Your task to perform on an android device: Play the last video I watched on Youtube Image 0: 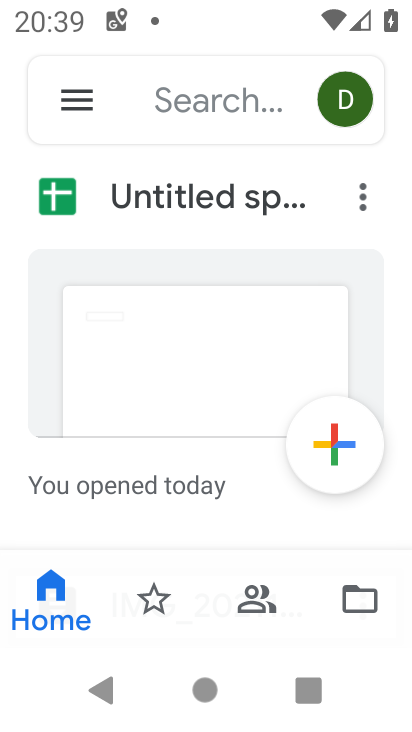
Step 0: press home button
Your task to perform on an android device: Play the last video I watched on Youtube Image 1: 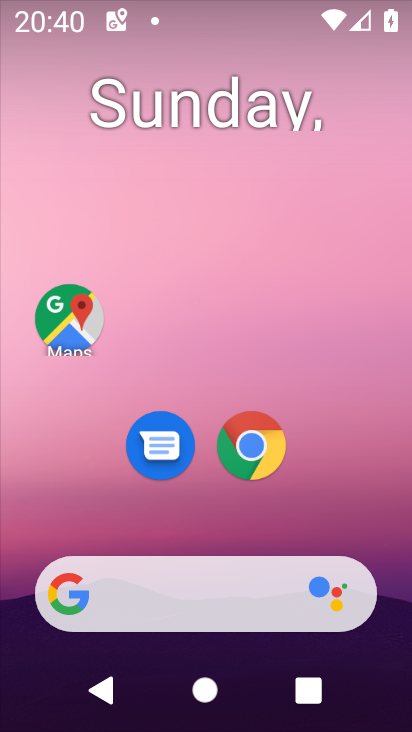
Step 1: drag from (126, 341) to (276, 94)
Your task to perform on an android device: Play the last video I watched on Youtube Image 2: 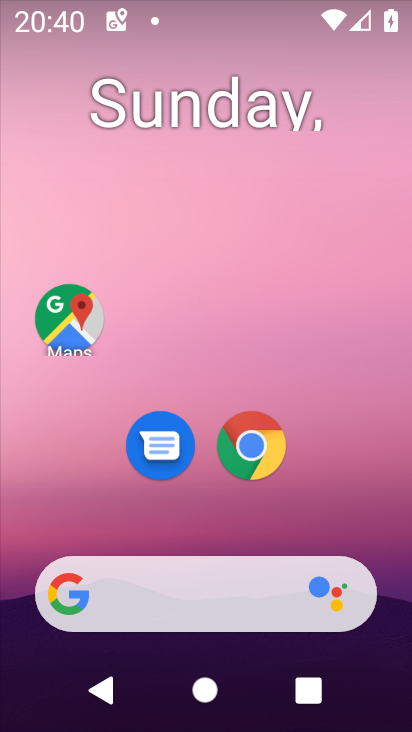
Step 2: drag from (6, 608) to (303, 95)
Your task to perform on an android device: Play the last video I watched on Youtube Image 3: 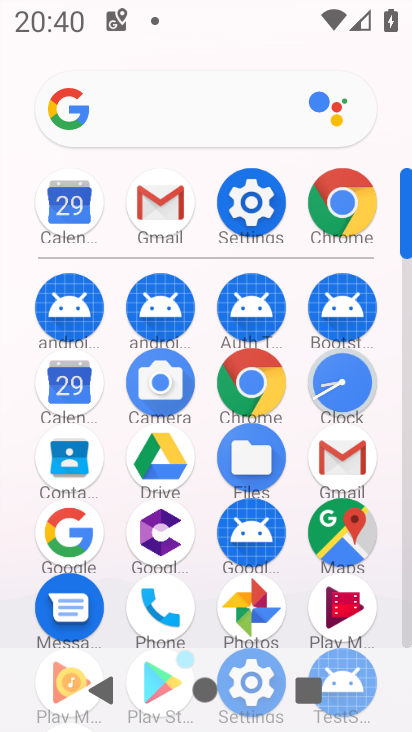
Step 3: drag from (41, 534) to (256, 156)
Your task to perform on an android device: Play the last video I watched on Youtube Image 4: 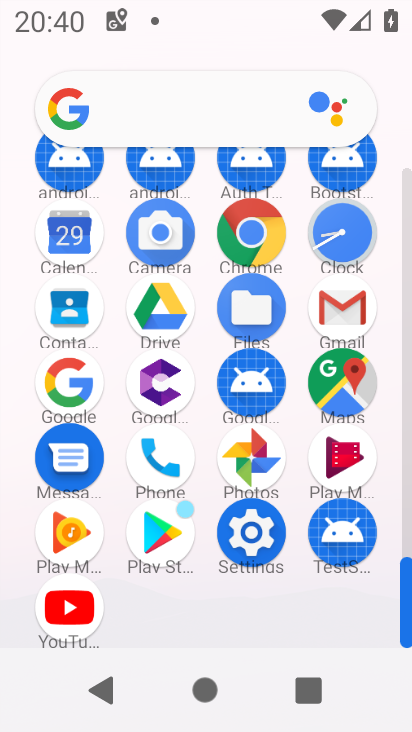
Step 4: click (56, 631)
Your task to perform on an android device: Play the last video I watched on Youtube Image 5: 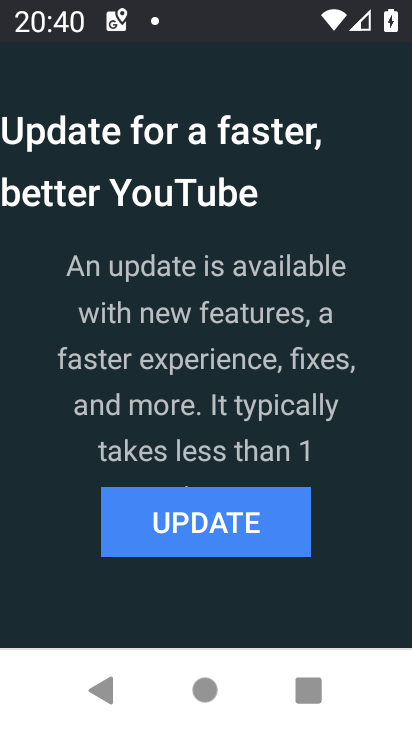
Step 5: task complete